Your task to perform on an android device: star an email in the gmail app Image 0: 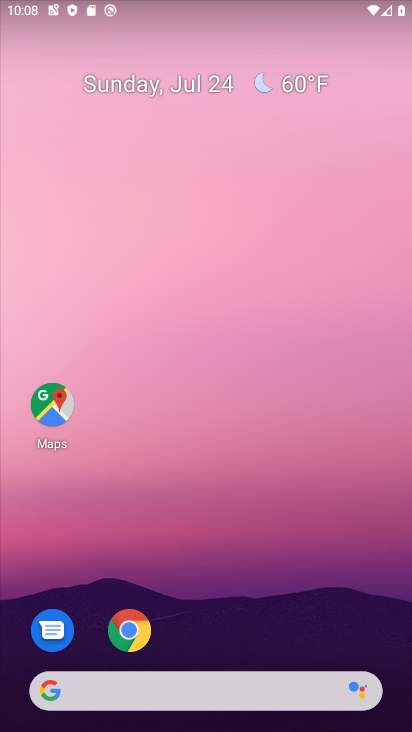
Step 0: drag from (210, 652) to (321, 0)
Your task to perform on an android device: star an email in the gmail app Image 1: 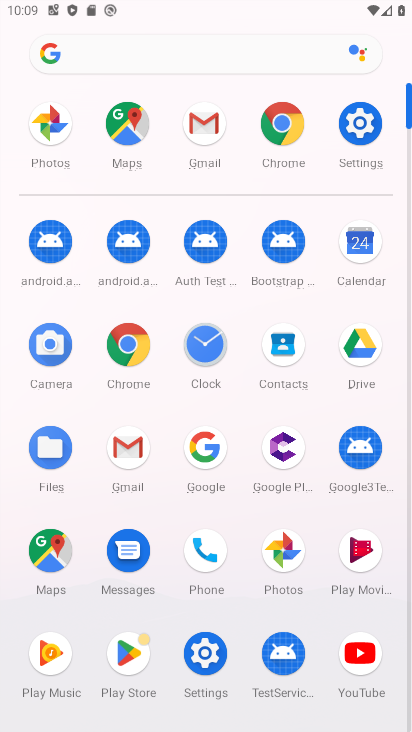
Step 1: click (127, 451)
Your task to perform on an android device: star an email in the gmail app Image 2: 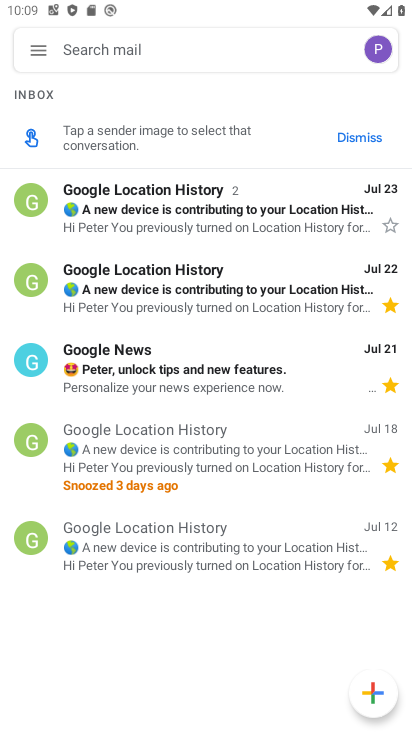
Step 2: click (391, 229)
Your task to perform on an android device: star an email in the gmail app Image 3: 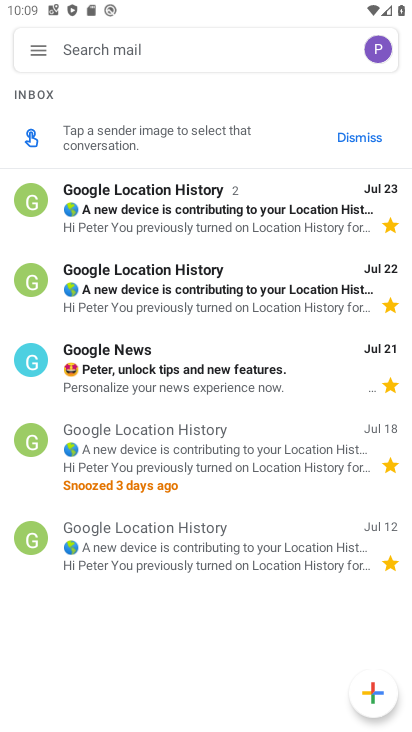
Step 3: task complete